Your task to perform on an android device: toggle sleep mode Image 0: 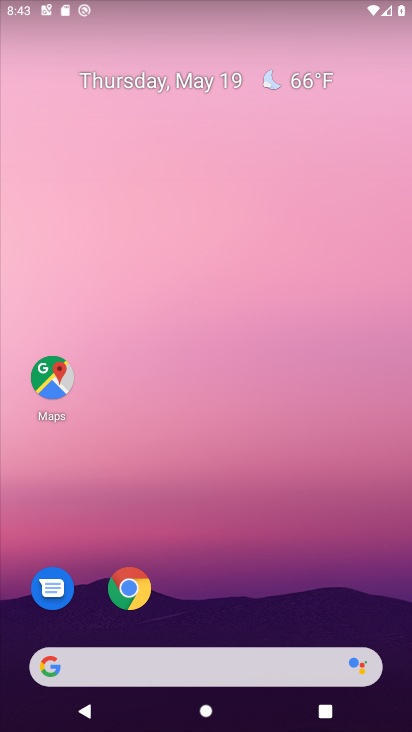
Step 0: drag from (350, 601) to (337, 284)
Your task to perform on an android device: toggle sleep mode Image 1: 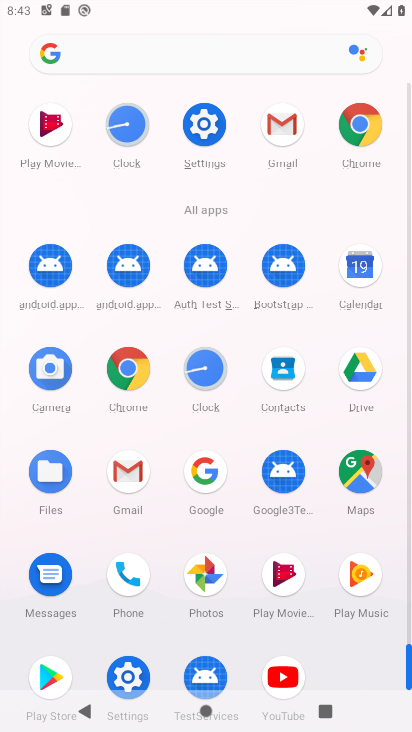
Step 1: click (216, 141)
Your task to perform on an android device: toggle sleep mode Image 2: 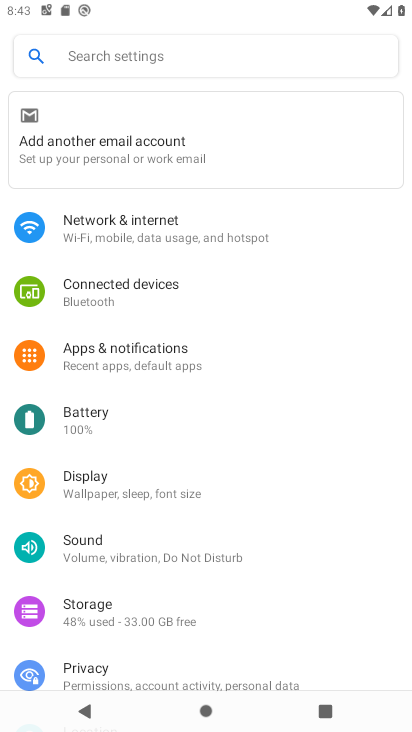
Step 2: drag from (327, 536) to (336, 428)
Your task to perform on an android device: toggle sleep mode Image 3: 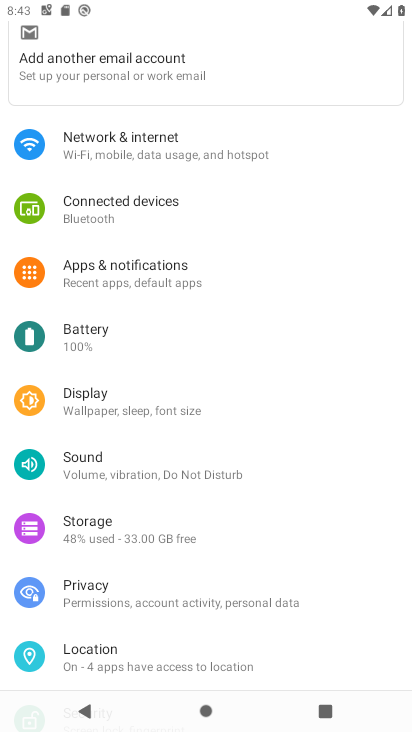
Step 3: drag from (324, 536) to (327, 497)
Your task to perform on an android device: toggle sleep mode Image 4: 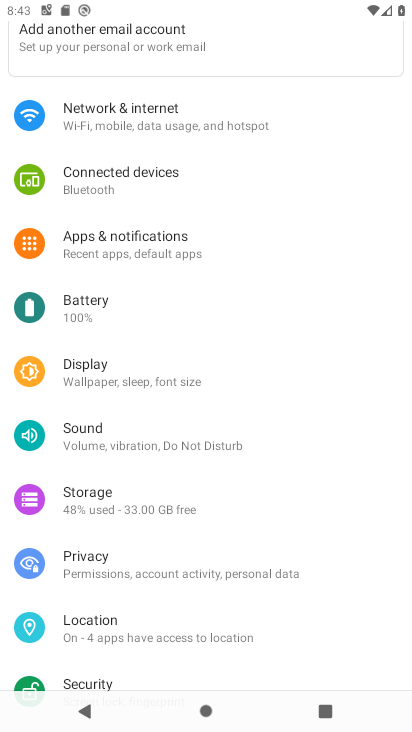
Step 4: drag from (337, 582) to (343, 514)
Your task to perform on an android device: toggle sleep mode Image 5: 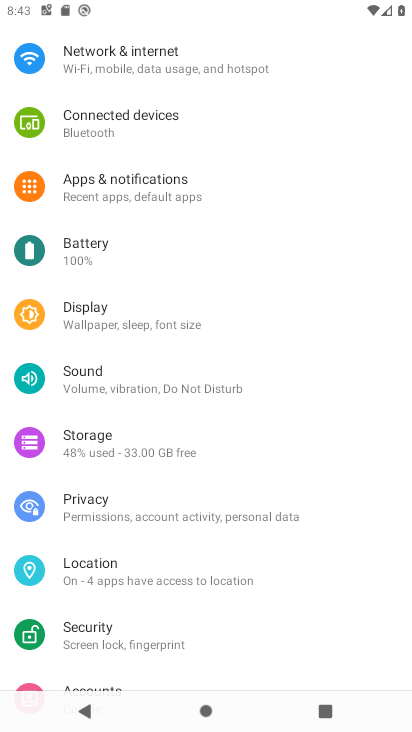
Step 5: drag from (334, 595) to (339, 467)
Your task to perform on an android device: toggle sleep mode Image 6: 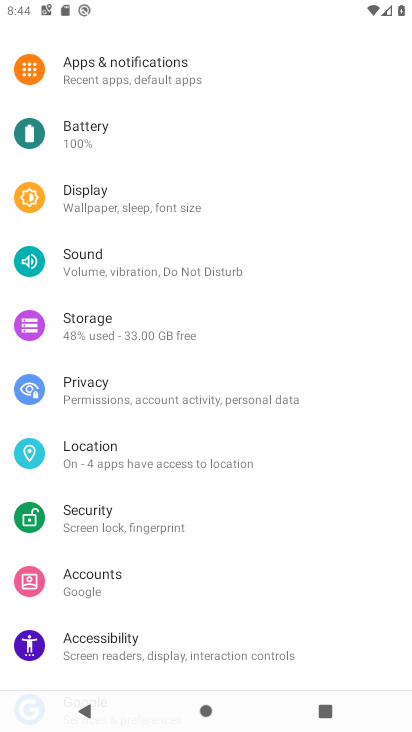
Step 6: drag from (349, 552) to (354, 458)
Your task to perform on an android device: toggle sleep mode Image 7: 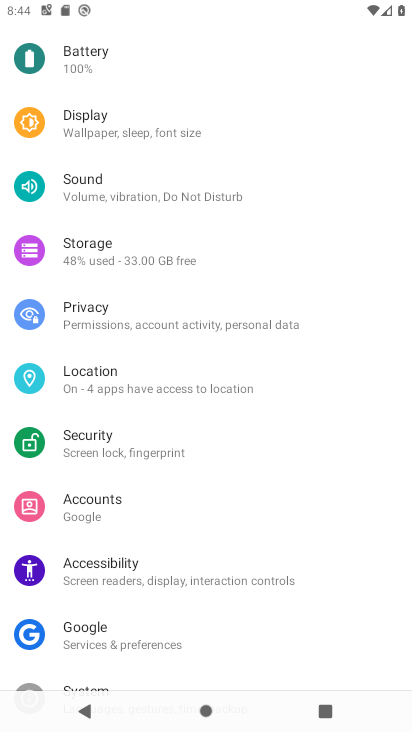
Step 7: drag from (343, 578) to (359, 485)
Your task to perform on an android device: toggle sleep mode Image 8: 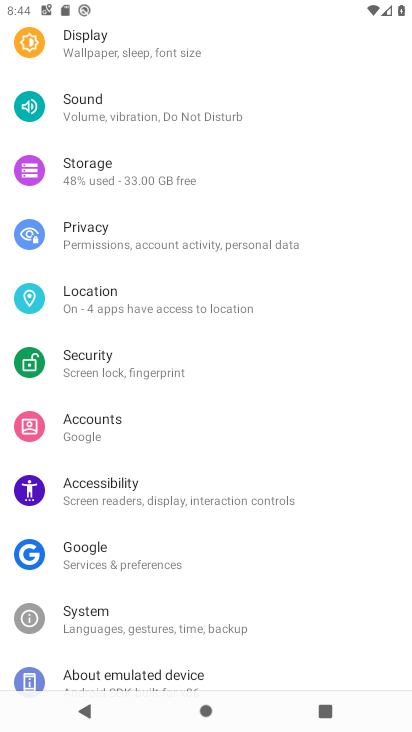
Step 8: drag from (351, 590) to (351, 506)
Your task to perform on an android device: toggle sleep mode Image 9: 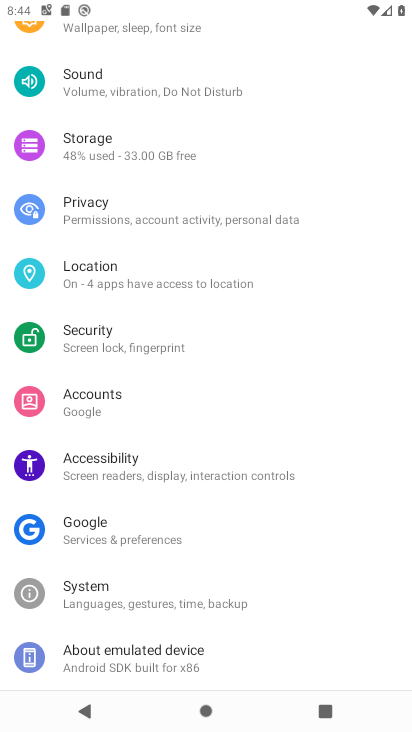
Step 9: drag from (357, 387) to (342, 473)
Your task to perform on an android device: toggle sleep mode Image 10: 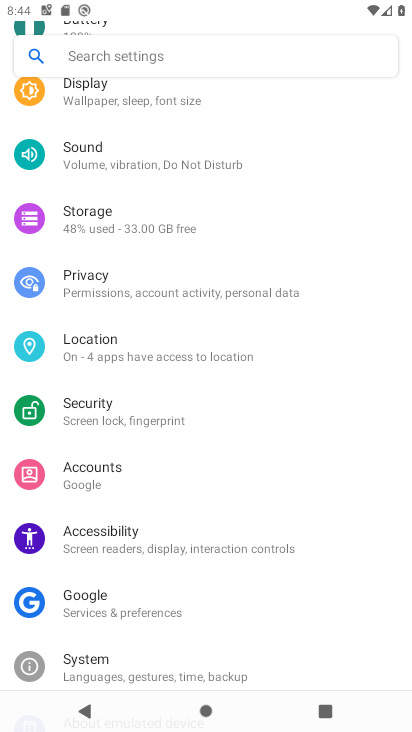
Step 10: drag from (357, 395) to (348, 469)
Your task to perform on an android device: toggle sleep mode Image 11: 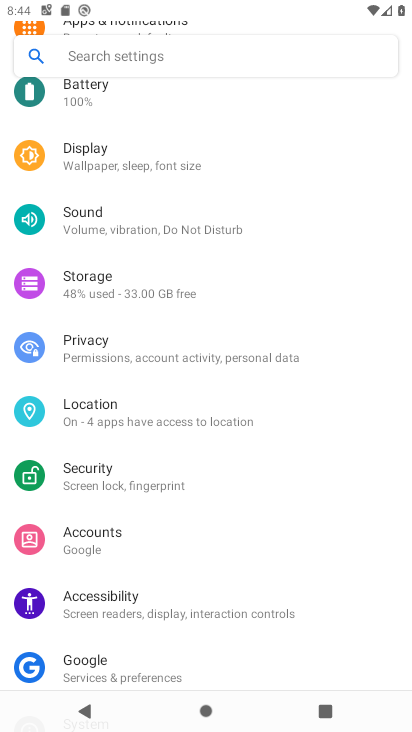
Step 11: drag from (360, 365) to (362, 460)
Your task to perform on an android device: toggle sleep mode Image 12: 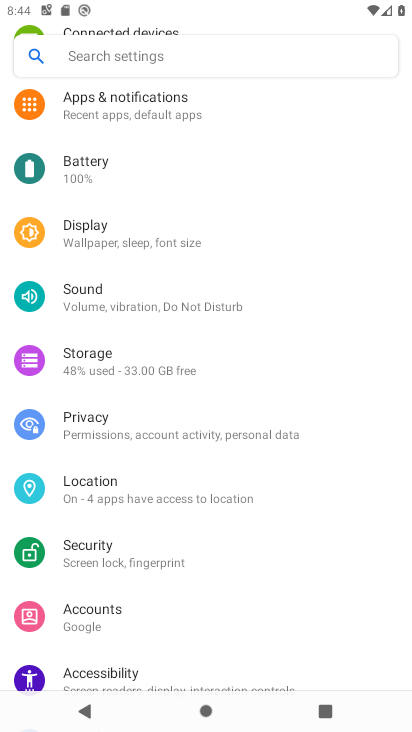
Step 12: drag from (365, 379) to (369, 457)
Your task to perform on an android device: toggle sleep mode Image 13: 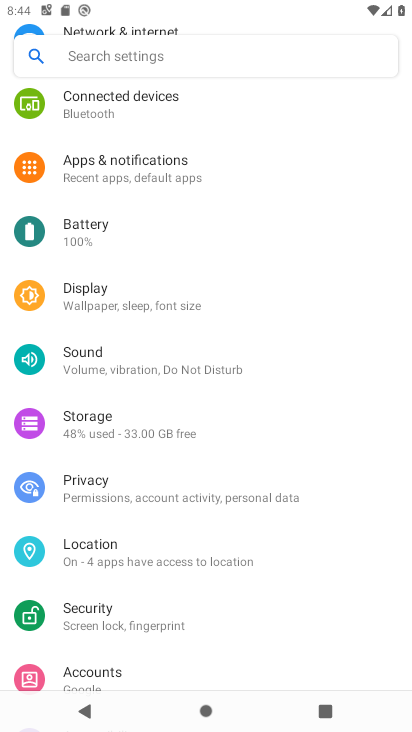
Step 13: drag from (353, 377) to (356, 476)
Your task to perform on an android device: toggle sleep mode Image 14: 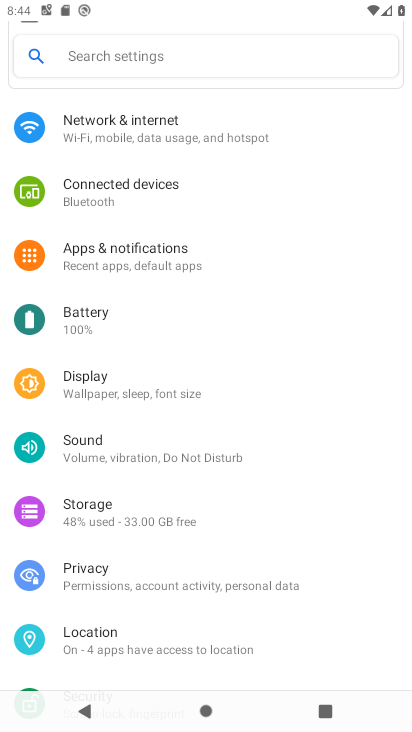
Step 14: drag from (344, 369) to (343, 442)
Your task to perform on an android device: toggle sleep mode Image 15: 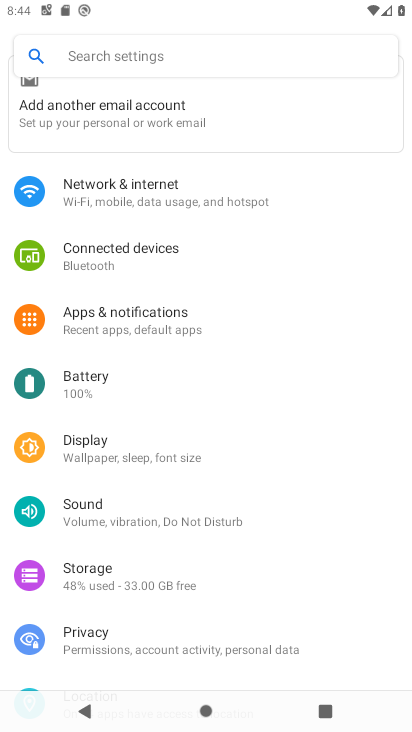
Step 15: drag from (333, 378) to (329, 476)
Your task to perform on an android device: toggle sleep mode Image 16: 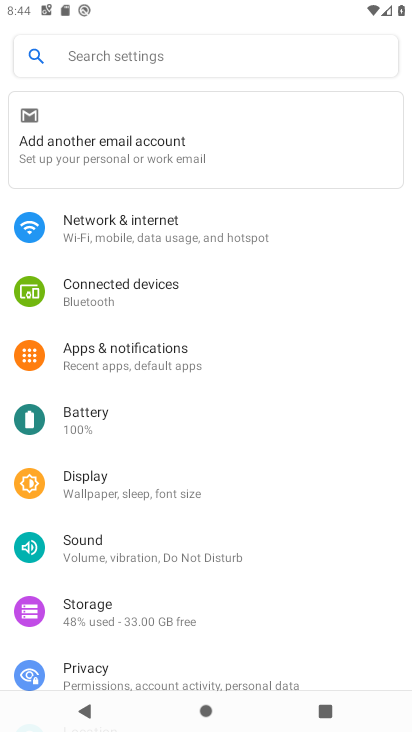
Step 16: click (176, 499)
Your task to perform on an android device: toggle sleep mode Image 17: 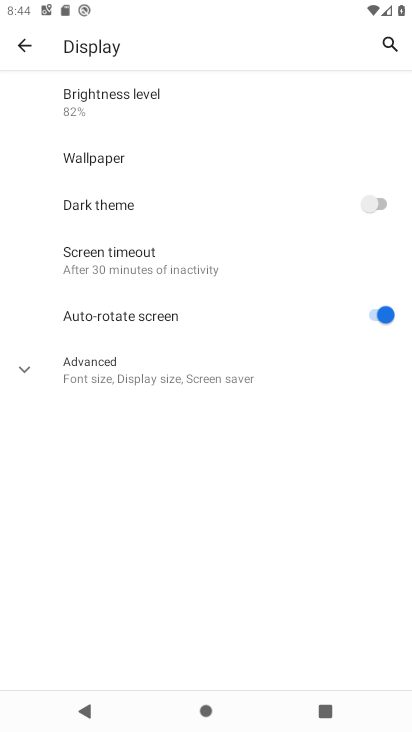
Step 17: click (245, 382)
Your task to perform on an android device: toggle sleep mode Image 18: 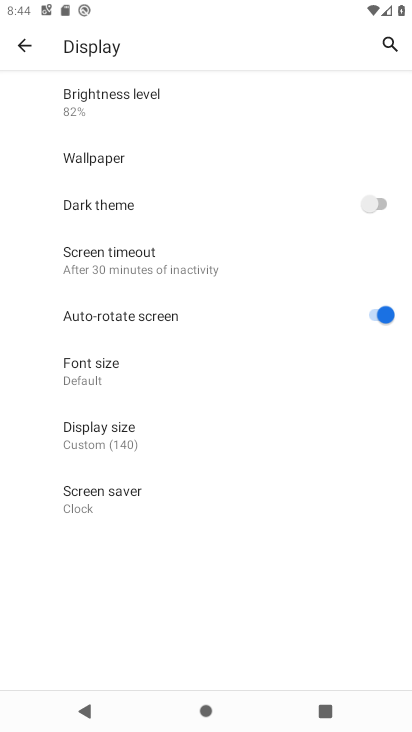
Step 18: task complete